Your task to perform on an android device: Go to display settings Image 0: 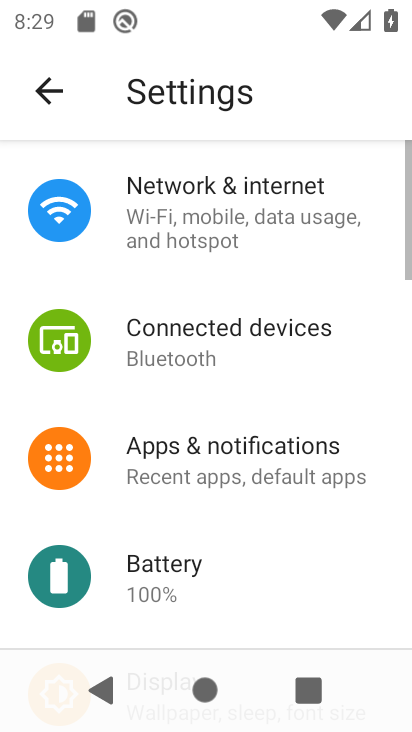
Step 0: drag from (326, 545) to (302, 182)
Your task to perform on an android device: Go to display settings Image 1: 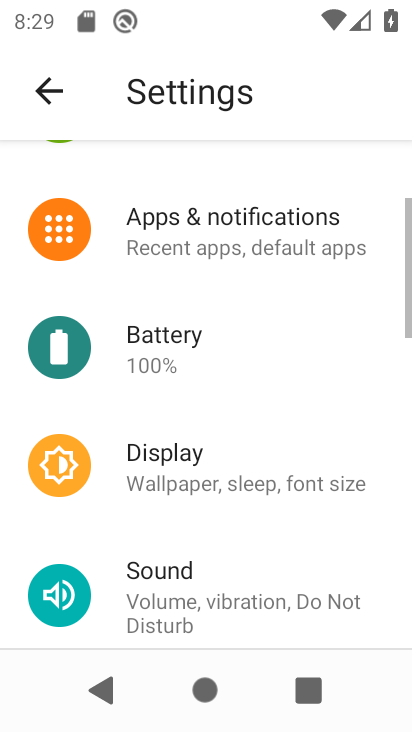
Step 1: click (250, 451)
Your task to perform on an android device: Go to display settings Image 2: 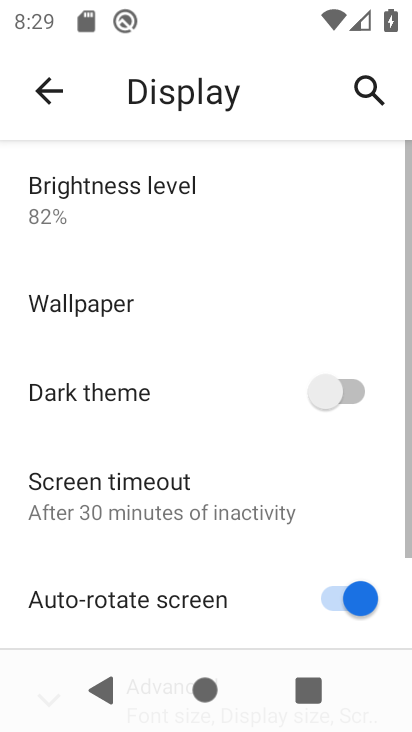
Step 2: task complete